Your task to perform on an android device: turn vacation reply on in the gmail app Image 0: 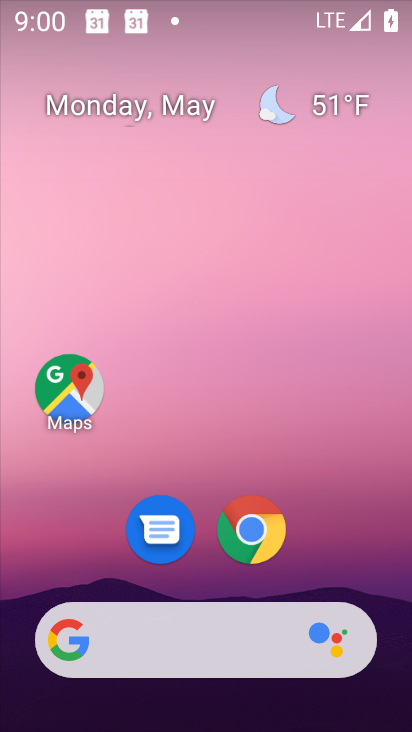
Step 0: drag from (46, 554) to (185, 154)
Your task to perform on an android device: turn vacation reply on in the gmail app Image 1: 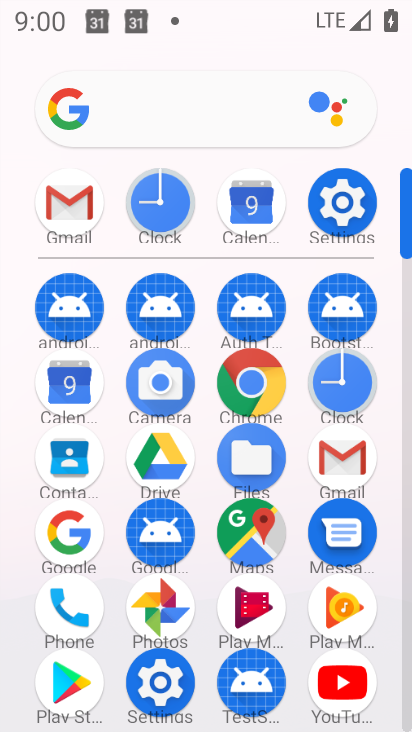
Step 1: click (54, 217)
Your task to perform on an android device: turn vacation reply on in the gmail app Image 2: 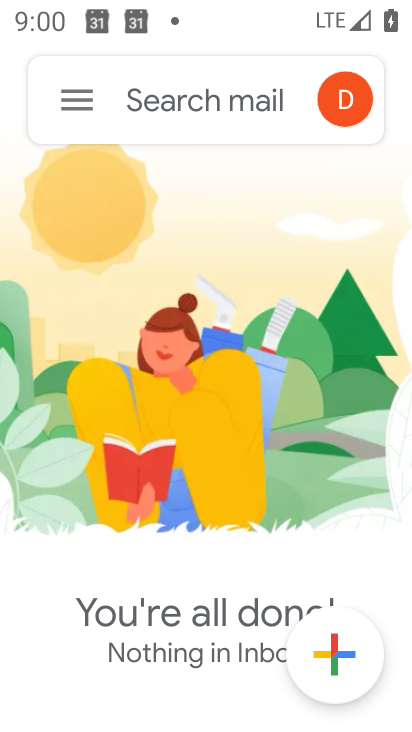
Step 2: click (68, 99)
Your task to perform on an android device: turn vacation reply on in the gmail app Image 3: 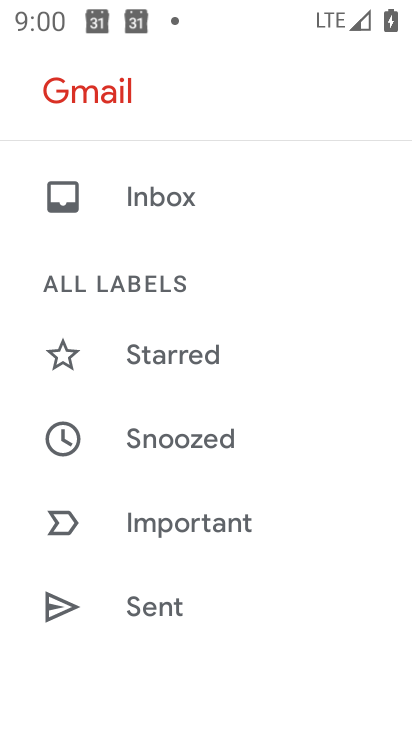
Step 3: drag from (121, 617) to (264, 169)
Your task to perform on an android device: turn vacation reply on in the gmail app Image 4: 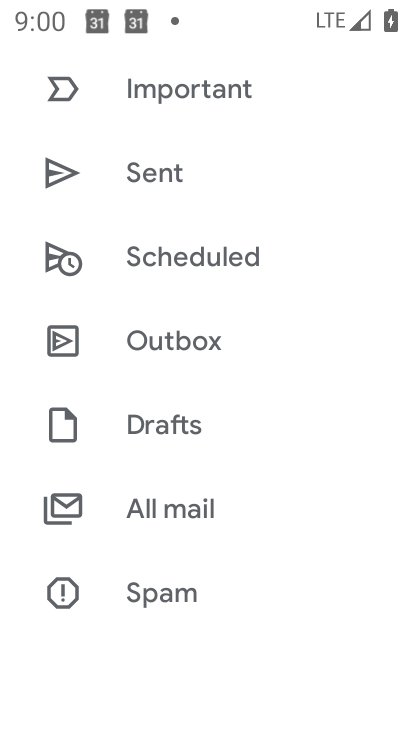
Step 4: drag from (108, 638) to (249, 147)
Your task to perform on an android device: turn vacation reply on in the gmail app Image 5: 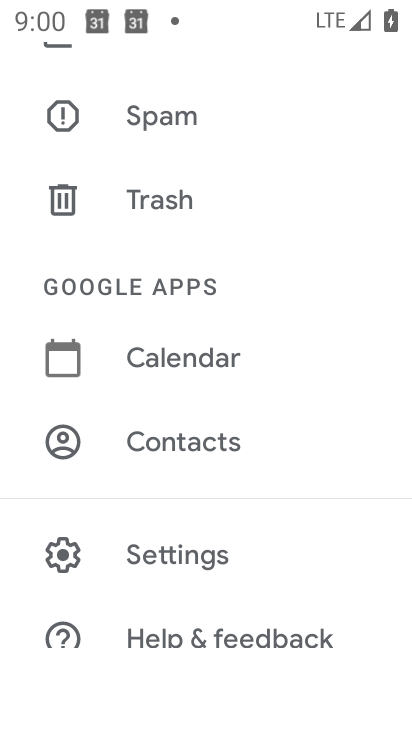
Step 5: click (180, 570)
Your task to perform on an android device: turn vacation reply on in the gmail app Image 6: 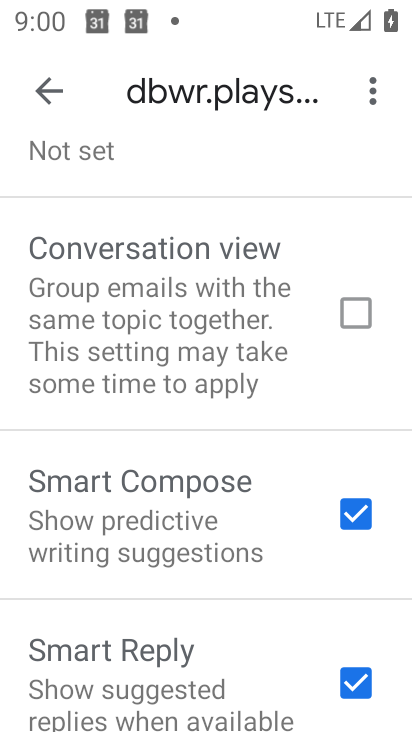
Step 6: drag from (144, 670) to (240, 215)
Your task to perform on an android device: turn vacation reply on in the gmail app Image 7: 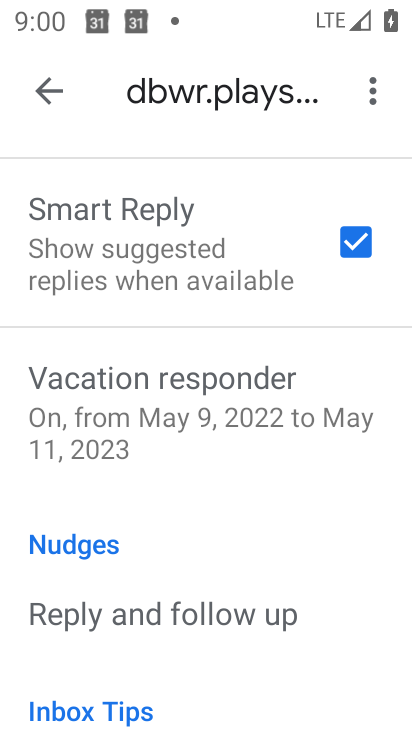
Step 7: click (143, 405)
Your task to perform on an android device: turn vacation reply on in the gmail app Image 8: 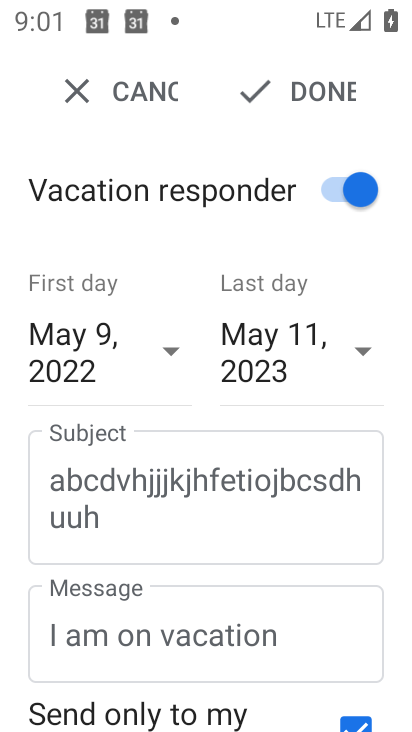
Step 8: click (322, 79)
Your task to perform on an android device: turn vacation reply on in the gmail app Image 9: 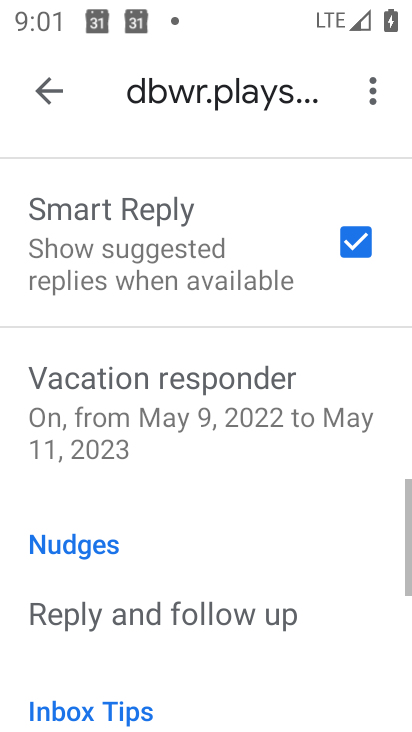
Step 9: task complete